Your task to perform on an android device: Show the shopping cart on newegg.com. Add bose soundlink to the cart on newegg.com Image 0: 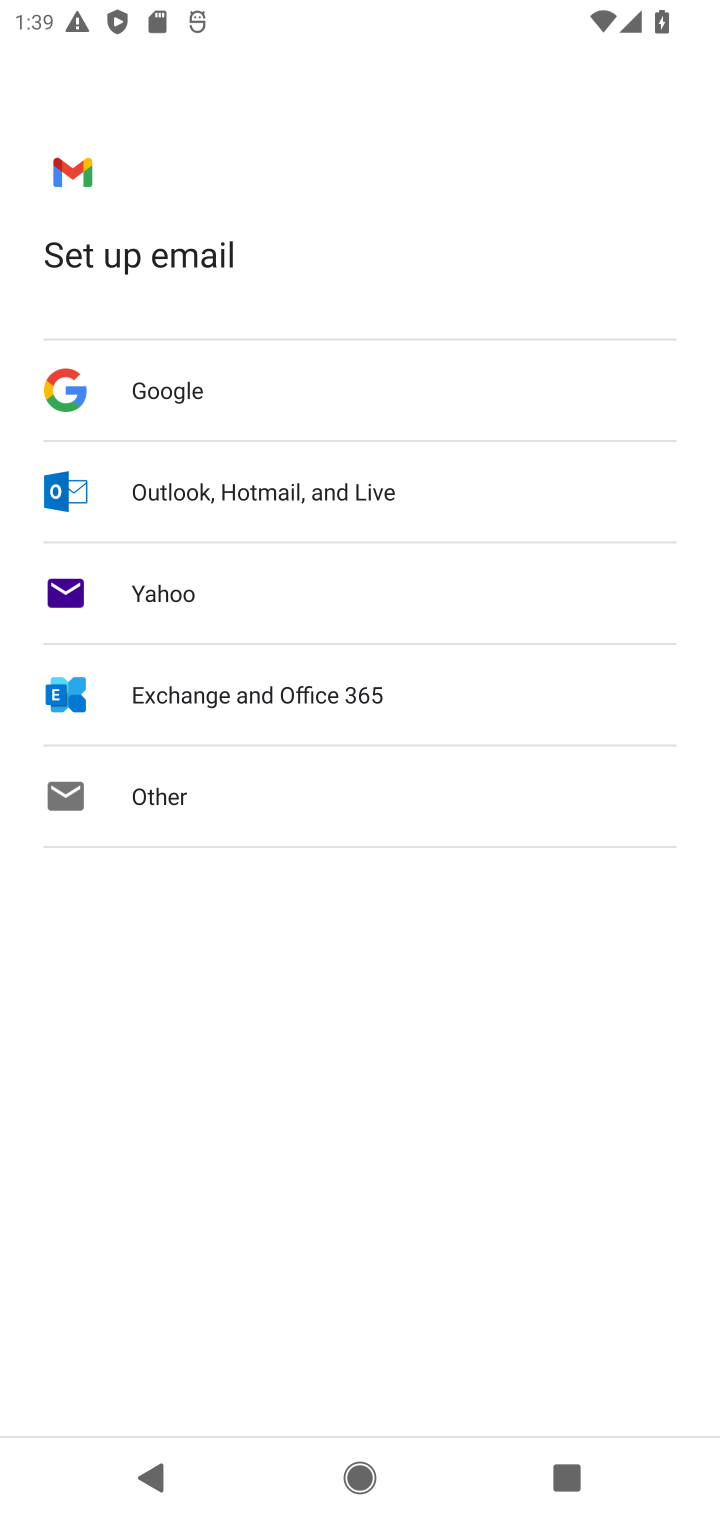
Step 0: press home button
Your task to perform on an android device: Show the shopping cart on newegg.com. Add bose soundlink to the cart on newegg.com Image 1: 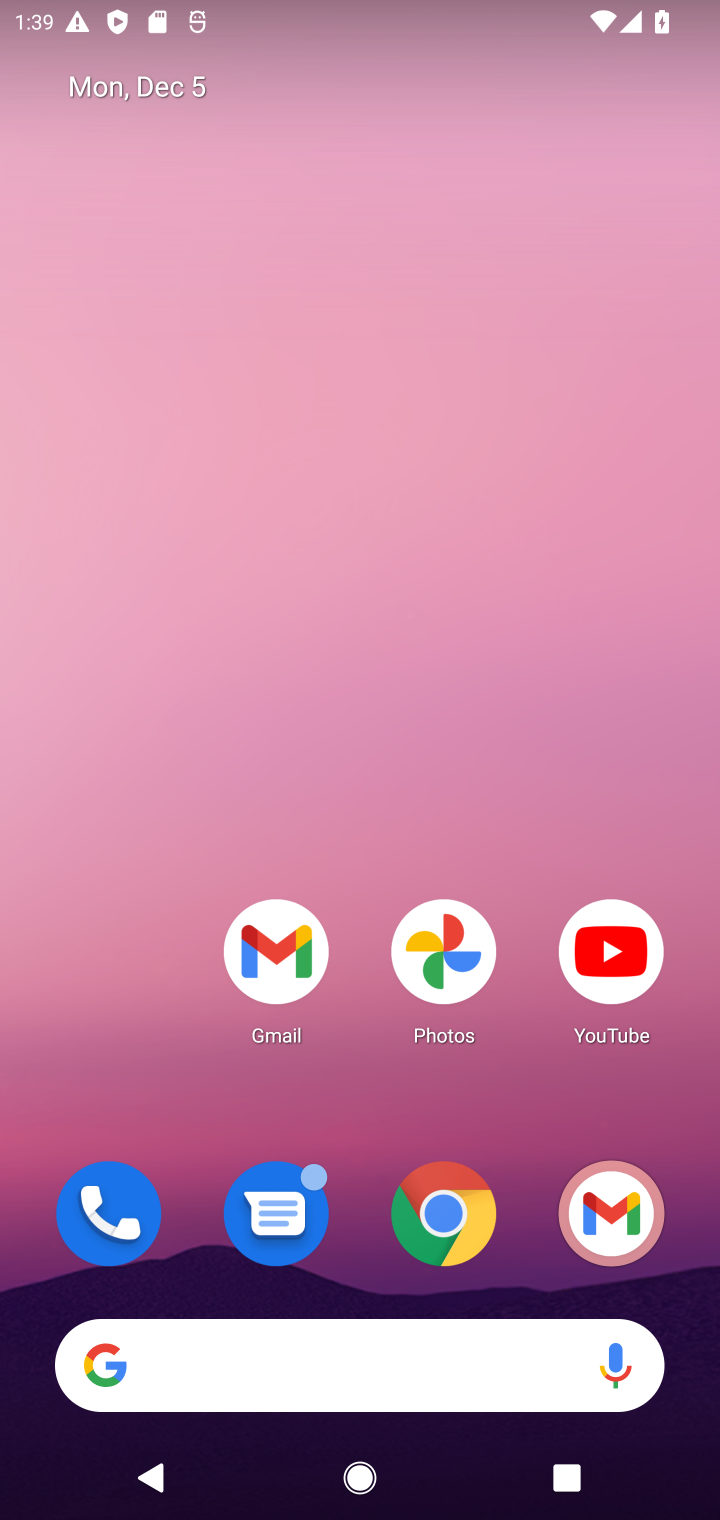
Step 1: click (441, 1230)
Your task to perform on an android device: Show the shopping cart on newegg.com. Add bose soundlink to the cart on newegg.com Image 2: 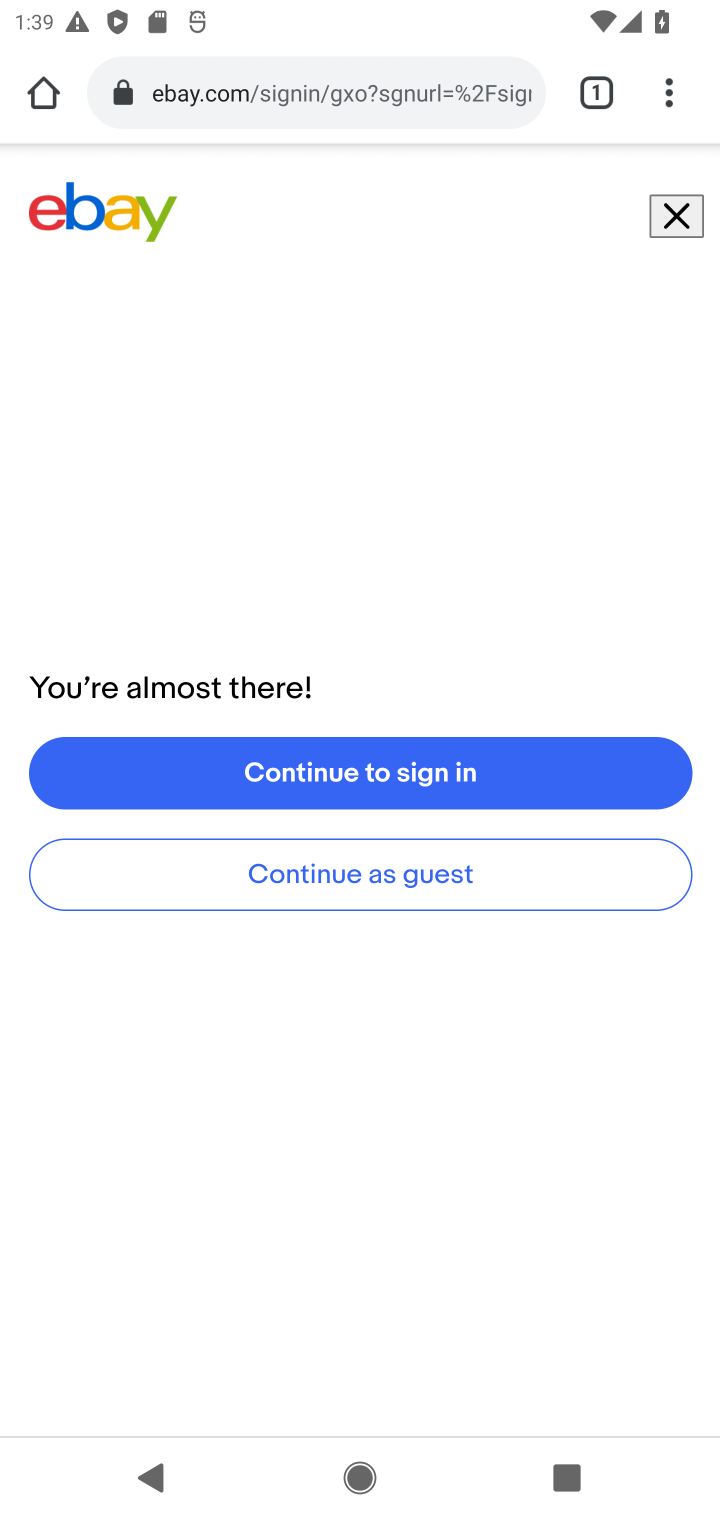
Step 2: click (255, 100)
Your task to perform on an android device: Show the shopping cart on newegg.com. Add bose soundlink to the cart on newegg.com Image 3: 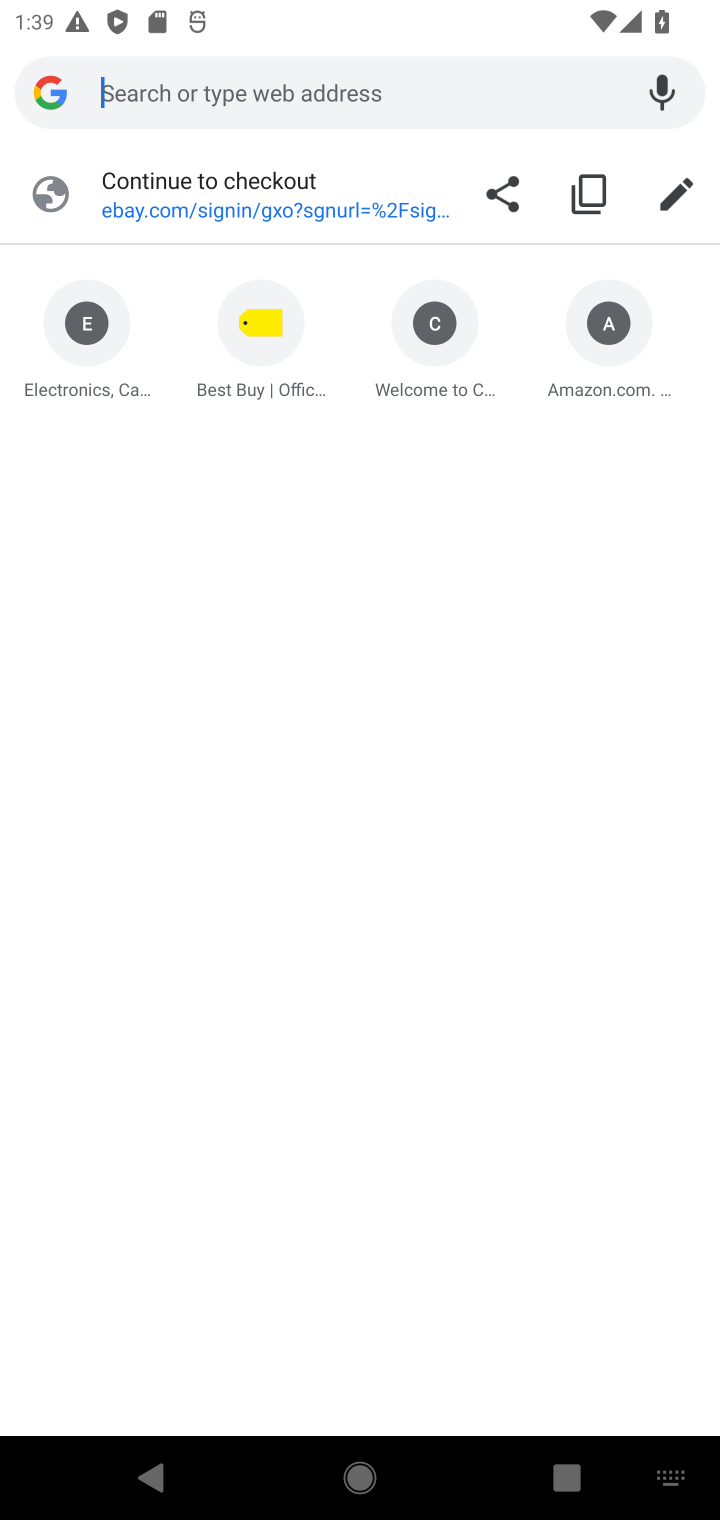
Step 3: type "newegg.com"
Your task to perform on an android device: Show the shopping cart on newegg.com. Add bose soundlink to the cart on newegg.com Image 4: 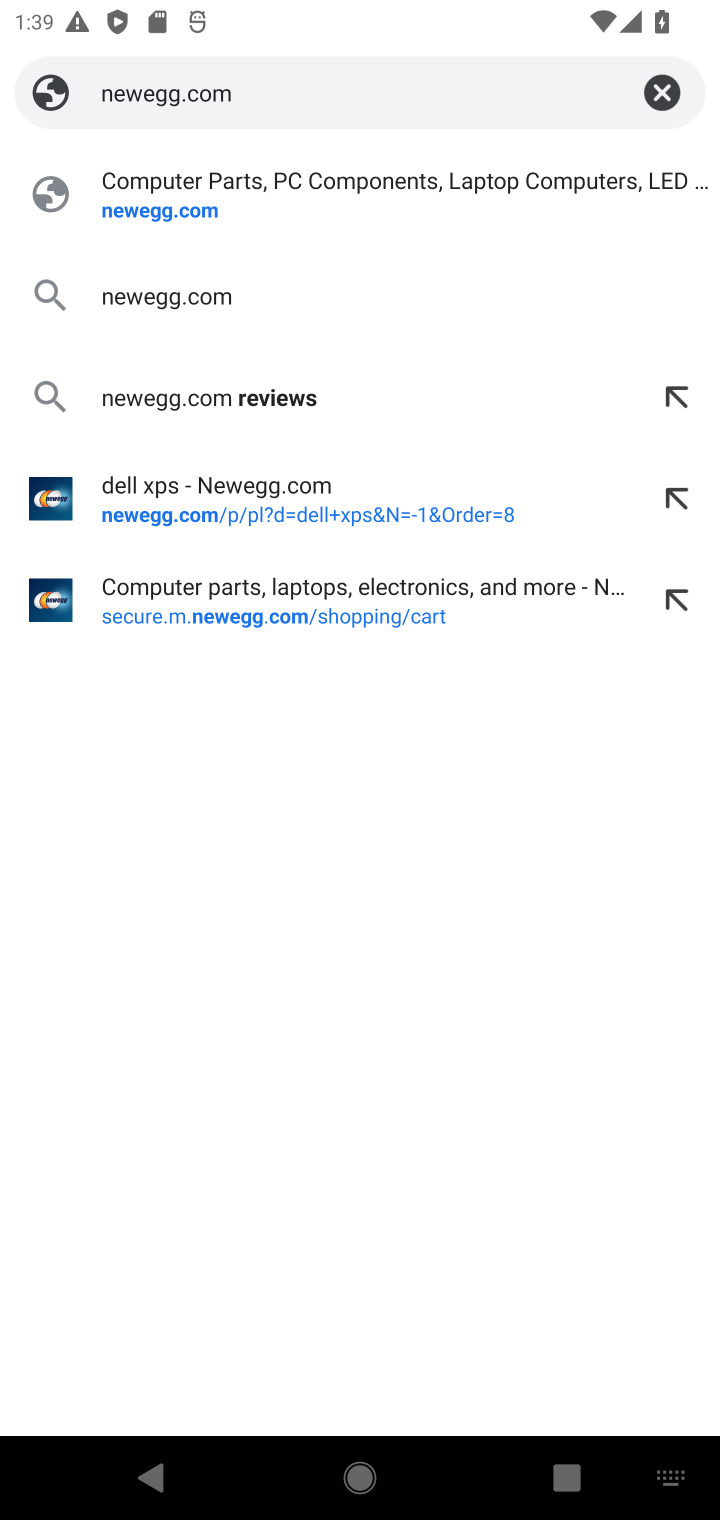
Step 4: click (175, 222)
Your task to perform on an android device: Show the shopping cart on newegg.com. Add bose soundlink to the cart on newegg.com Image 5: 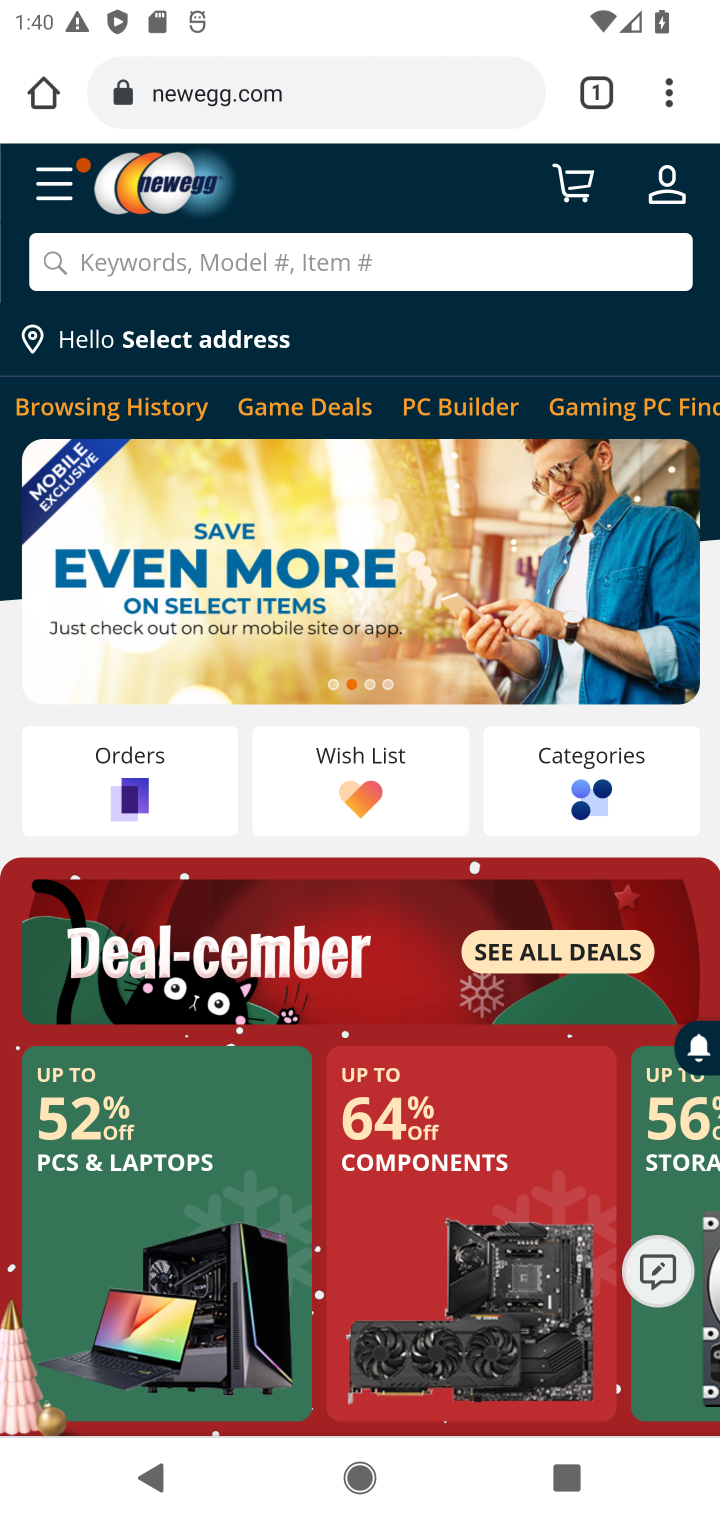
Step 5: click (576, 184)
Your task to perform on an android device: Show the shopping cart on newegg.com. Add bose soundlink to the cart on newegg.com Image 6: 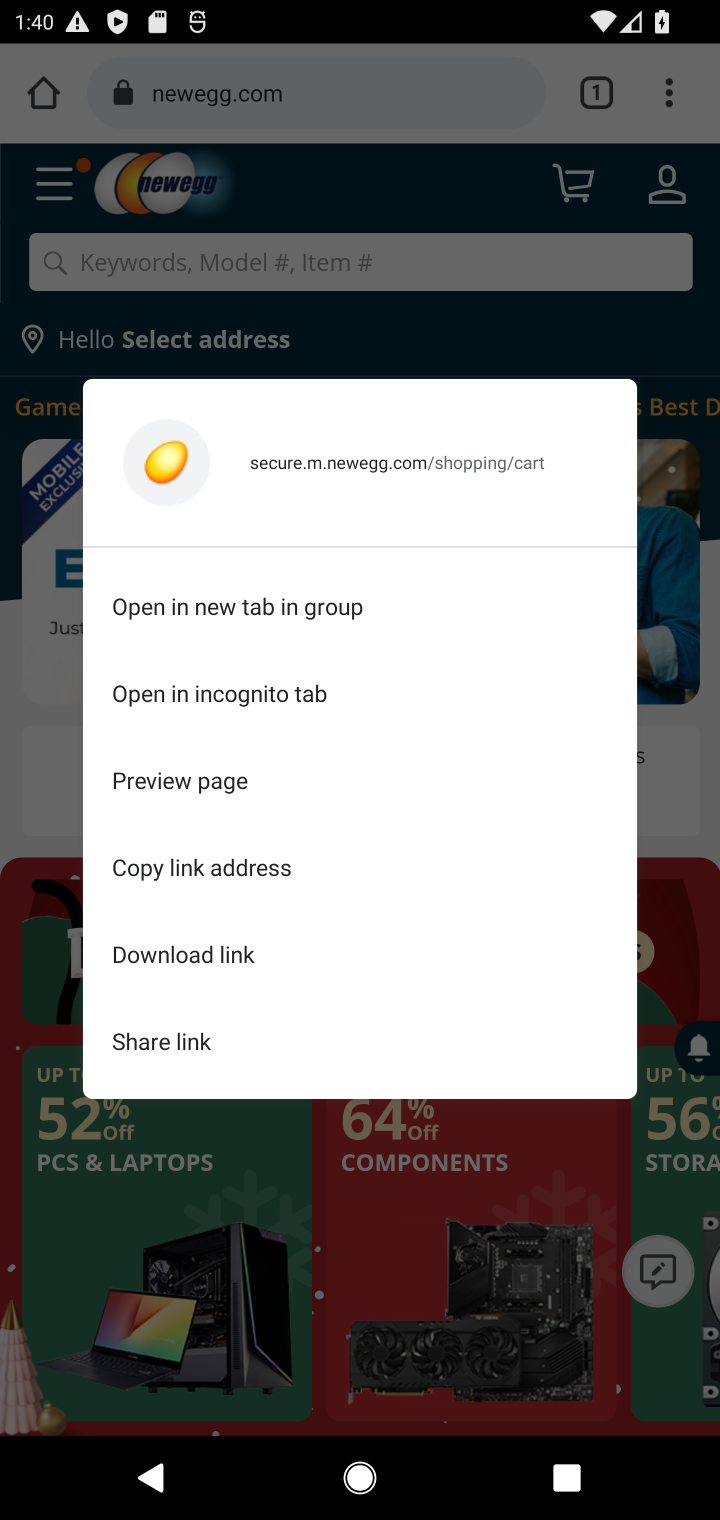
Step 6: click (578, 190)
Your task to perform on an android device: Show the shopping cart on newegg.com. Add bose soundlink to the cart on newegg.com Image 7: 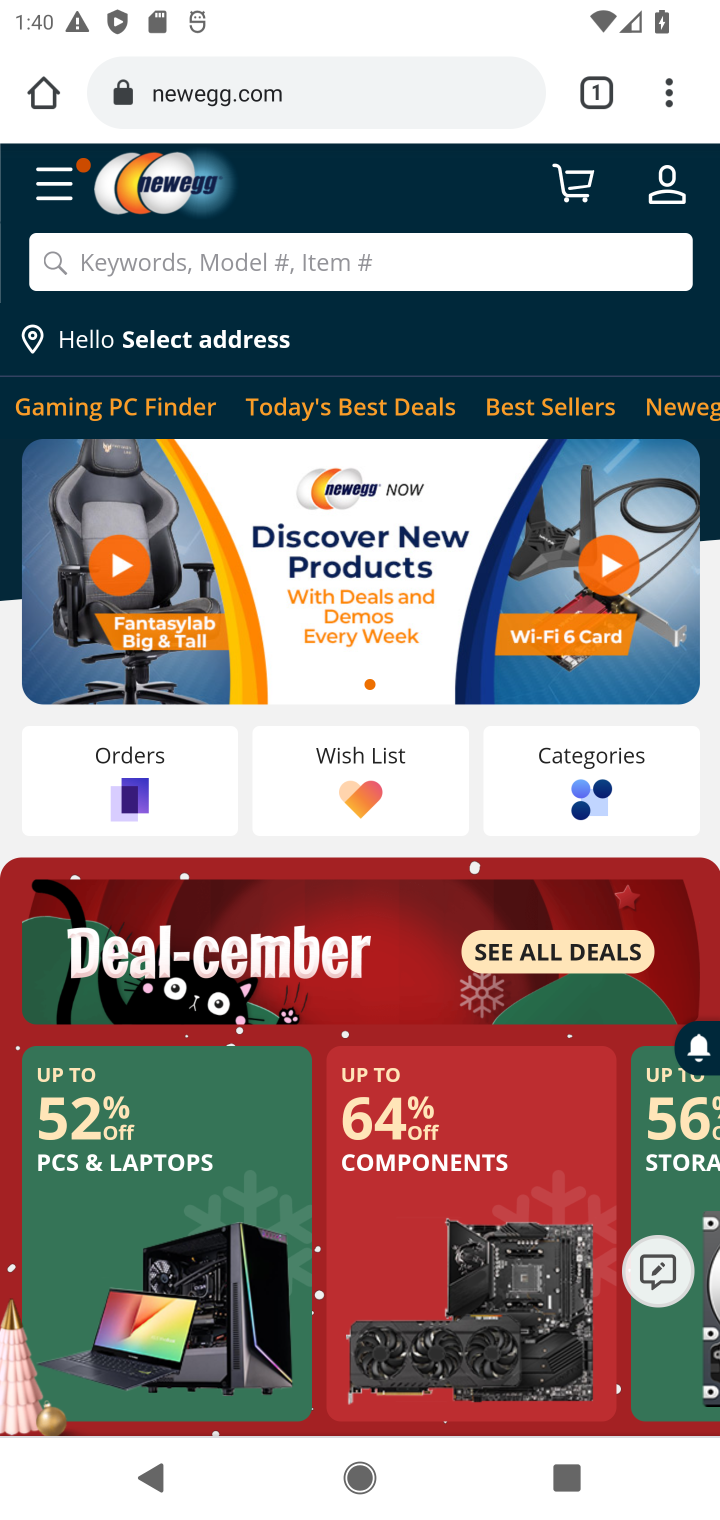
Step 7: click (577, 186)
Your task to perform on an android device: Show the shopping cart on newegg.com. Add bose soundlink to the cart on newegg.com Image 8: 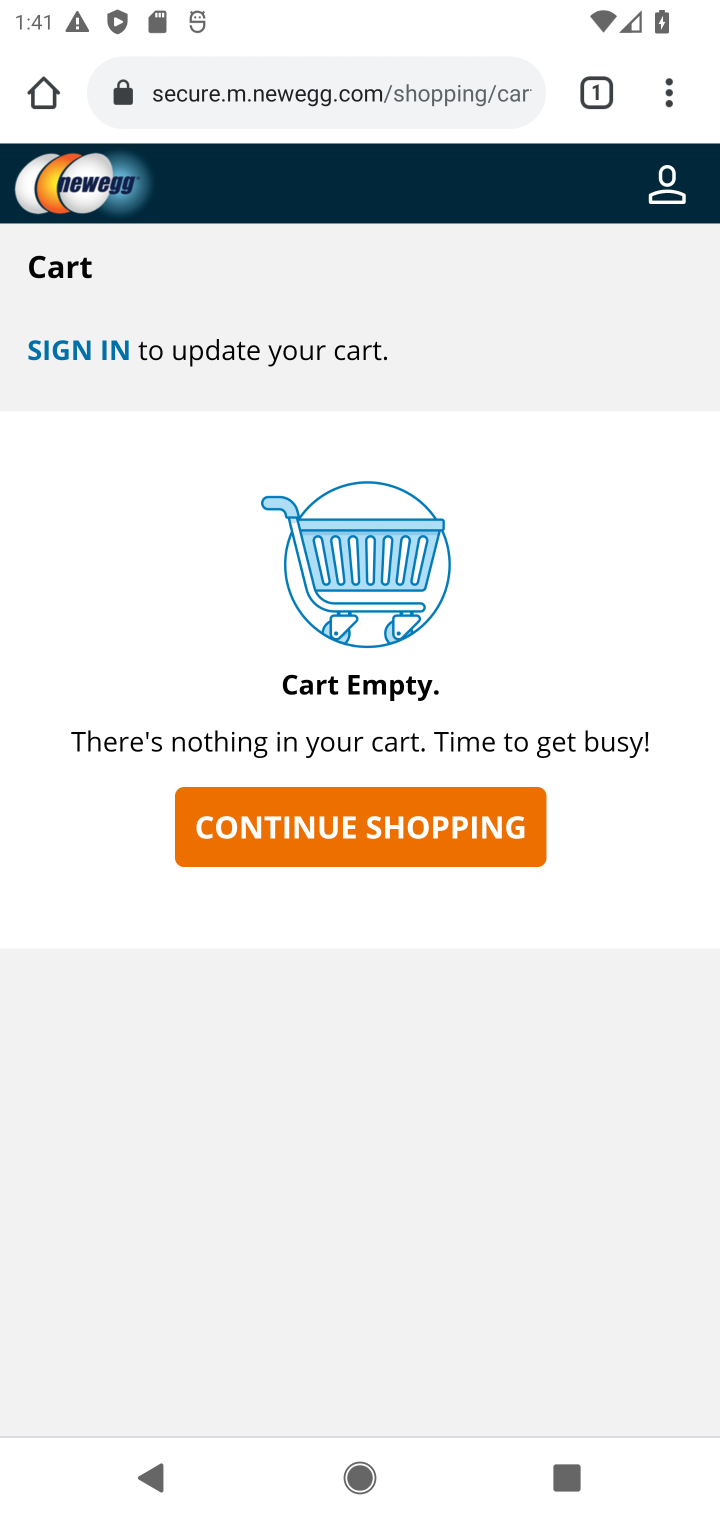
Step 8: click (369, 820)
Your task to perform on an android device: Show the shopping cart on newegg.com. Add bose soundlink to the cart on newegg.com Image 9: 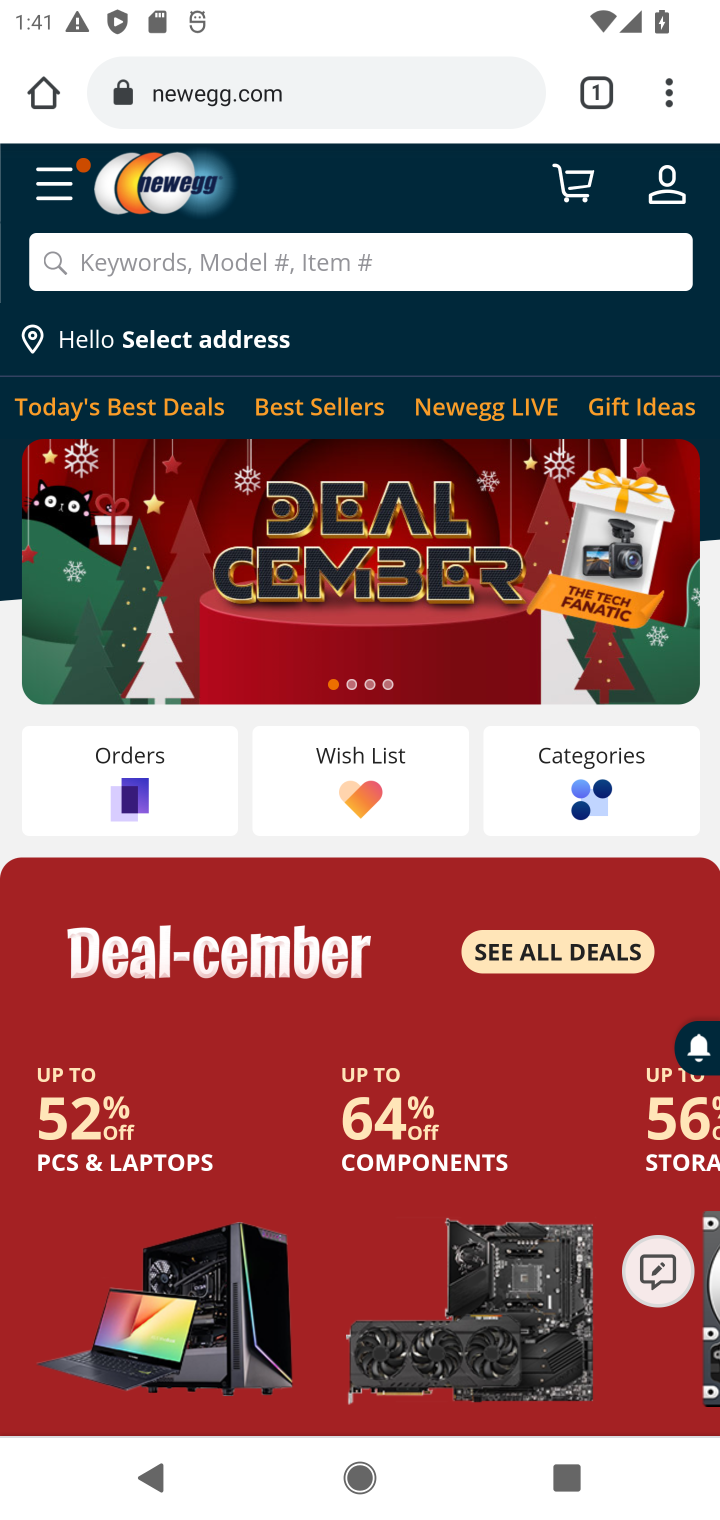
Step 9: click (230, 277)
Your task to perform on an android device: Show the shopping cart on newegg.com. Add bose soundlink to the cart on newegg.com Image 10: 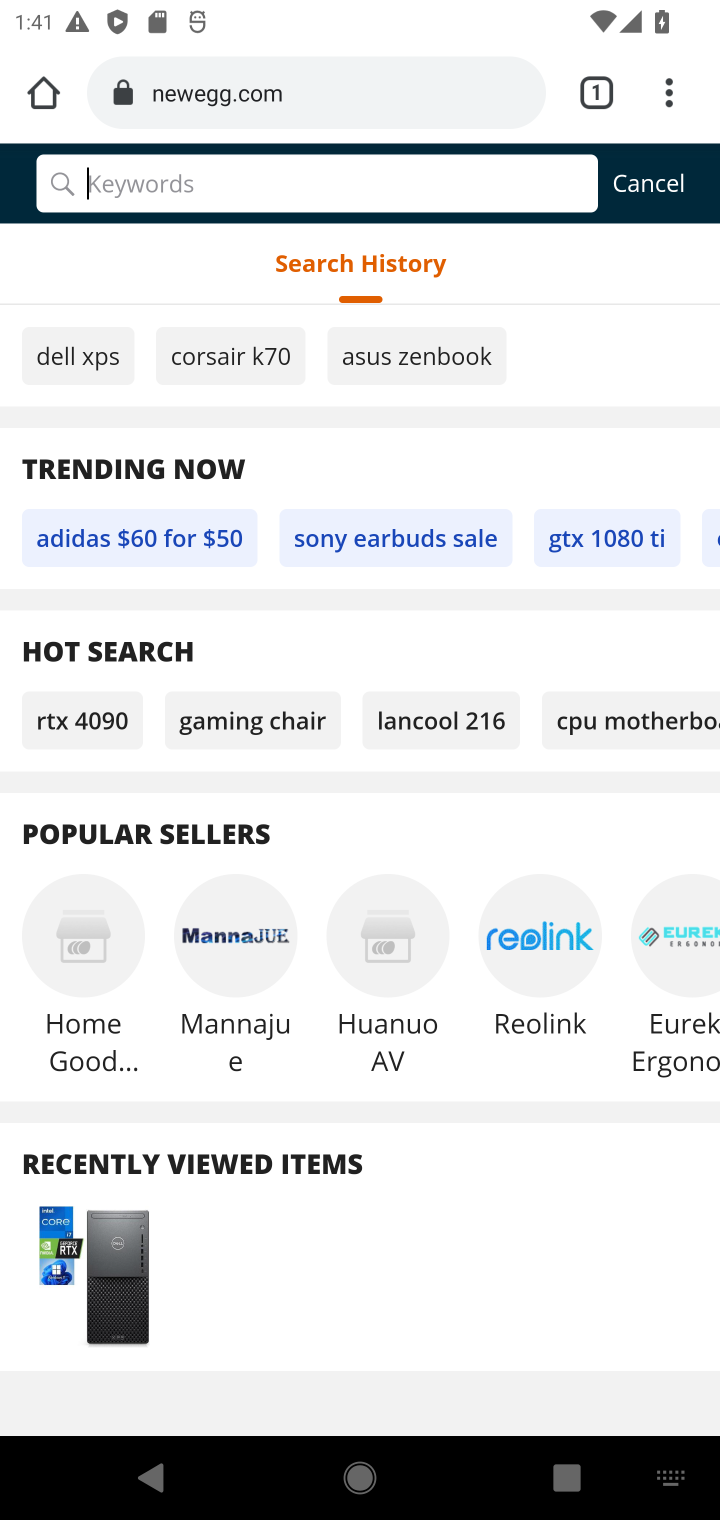
Step 10: click (279, 197)
Your task to perform on an android device: Show the shopping cart on newegg.com. Add bose soundlink to the cart on newegg.com Image 11: 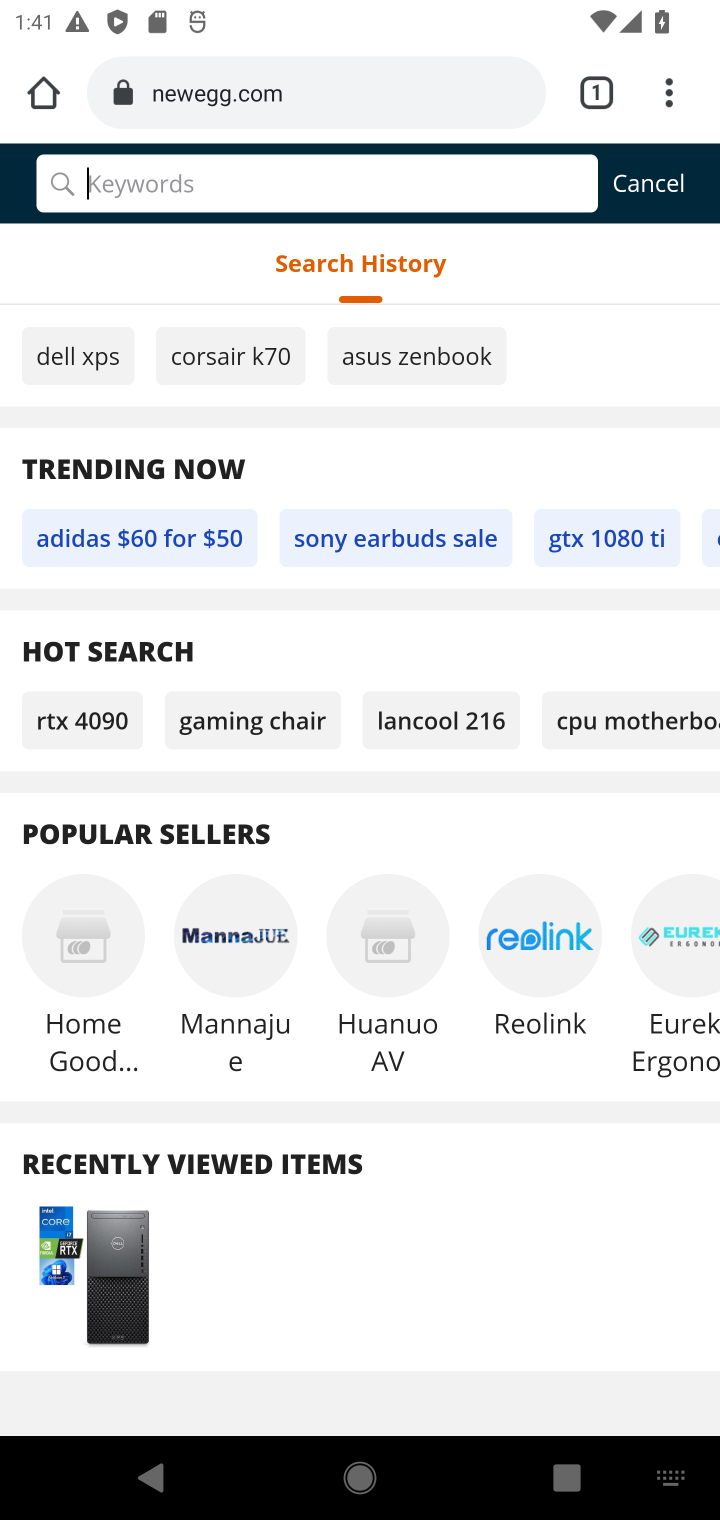
Step 11: type "bose soundlink"
Your task to perform on an android device: Show the shopping cart on newegg.com. Add bose soundlink to the cart on newegg.com Image 12: 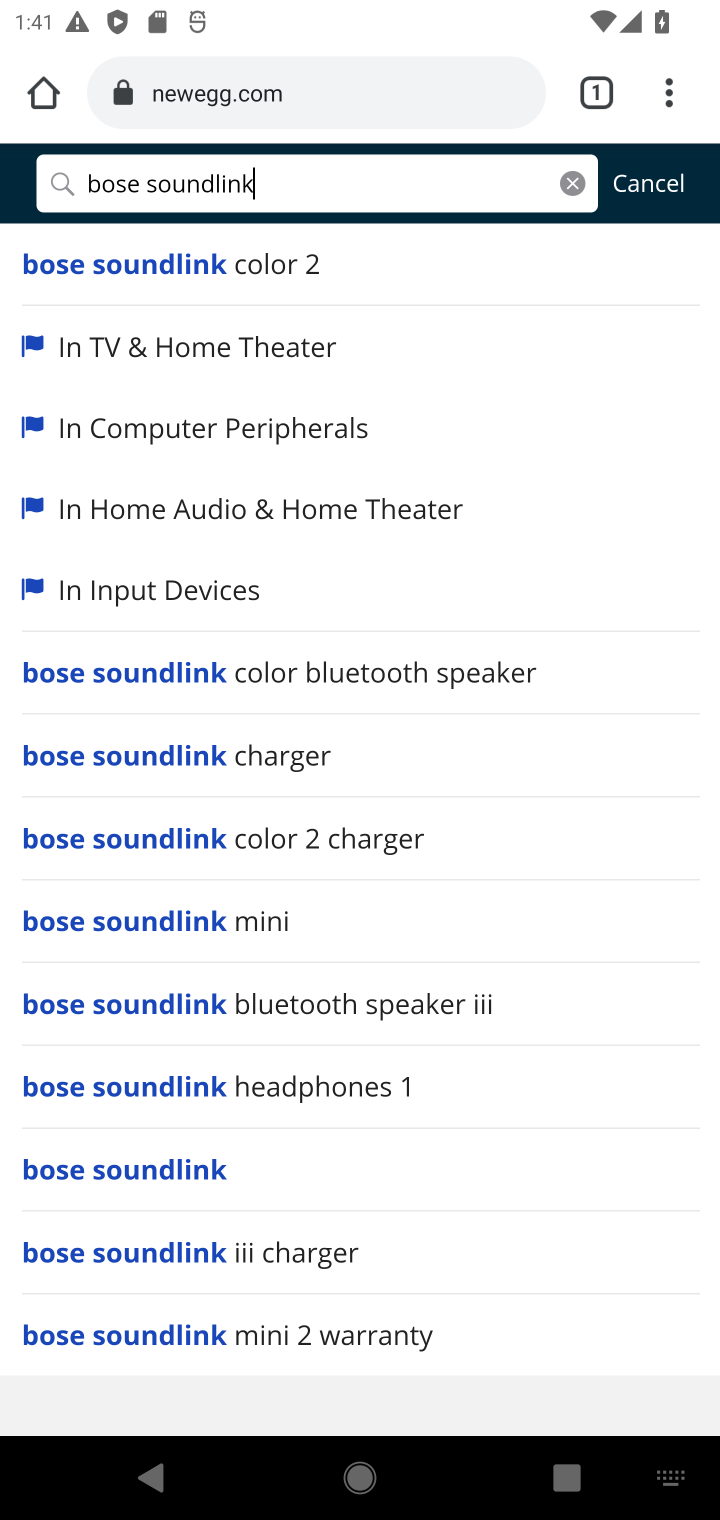
Step 12: click (178, 1162)
Your task to perform on an android device: Show the shopping cart on newegg.com. Add bose soundlink to the cart on newegg.com Image 13: 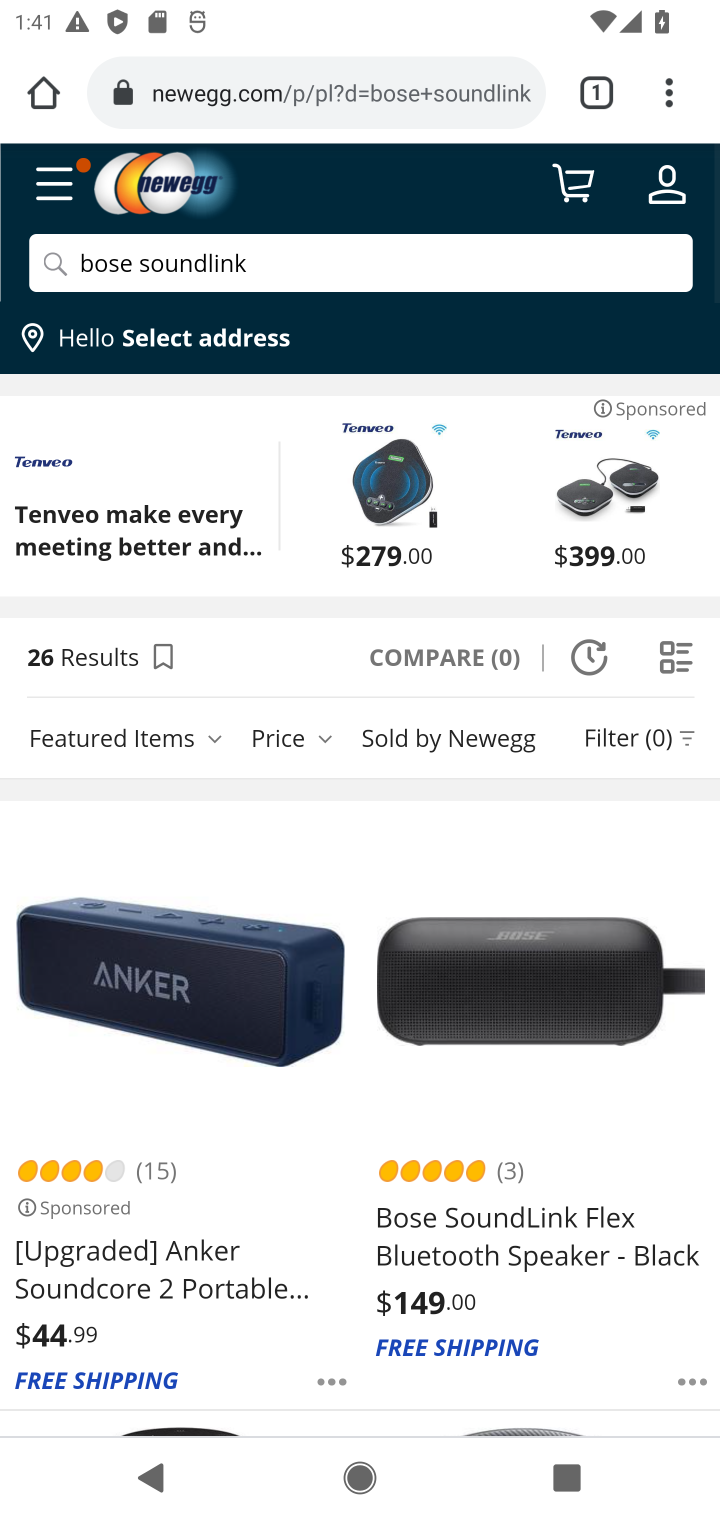
Step 13: drag from (356, 1208) to (350, 806)
Your task to perform on an android device: Show the shopping cart on newegg.com. Add bose soundlink to the cart on newegg.com Image 14: 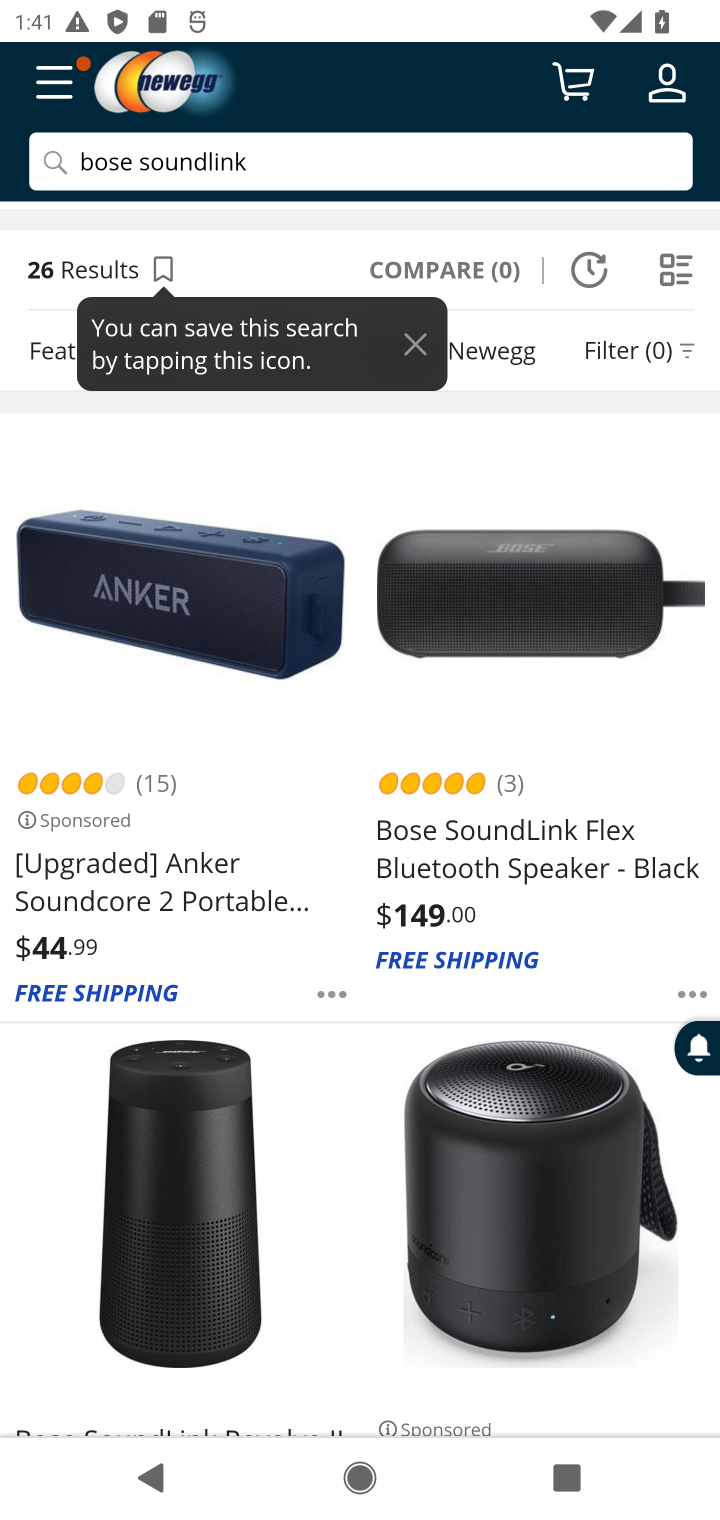
Step 14: click (499, 861)
Your task to perform on an android device: Show the shopping cart on newegg.com. Add bose soundlink to the cart on newegg.com Image 15: 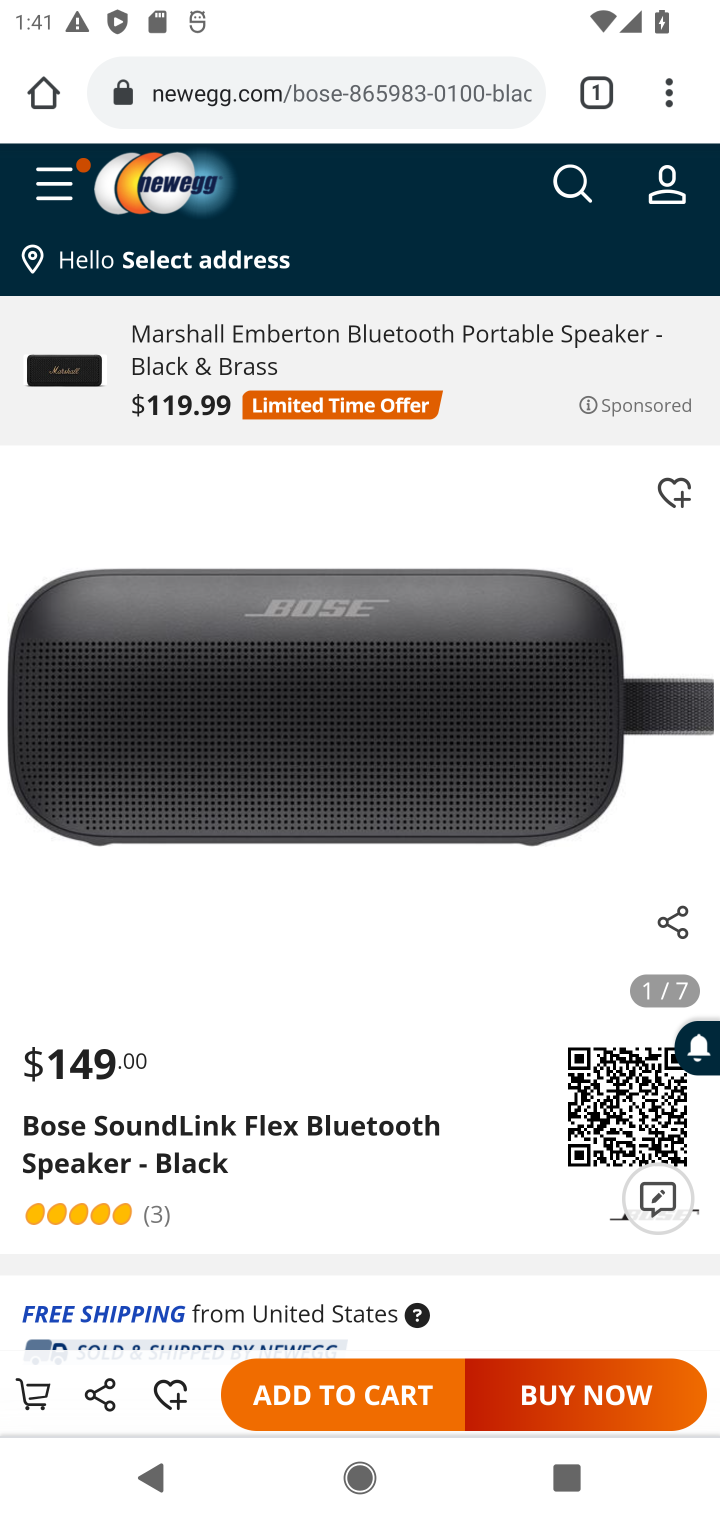
Step 15: click (336, 1393)
Your task to perform on an android device: Show the shopping cart on newegg.com. Add bose soundlink to the cart on newegg.com Image 16: 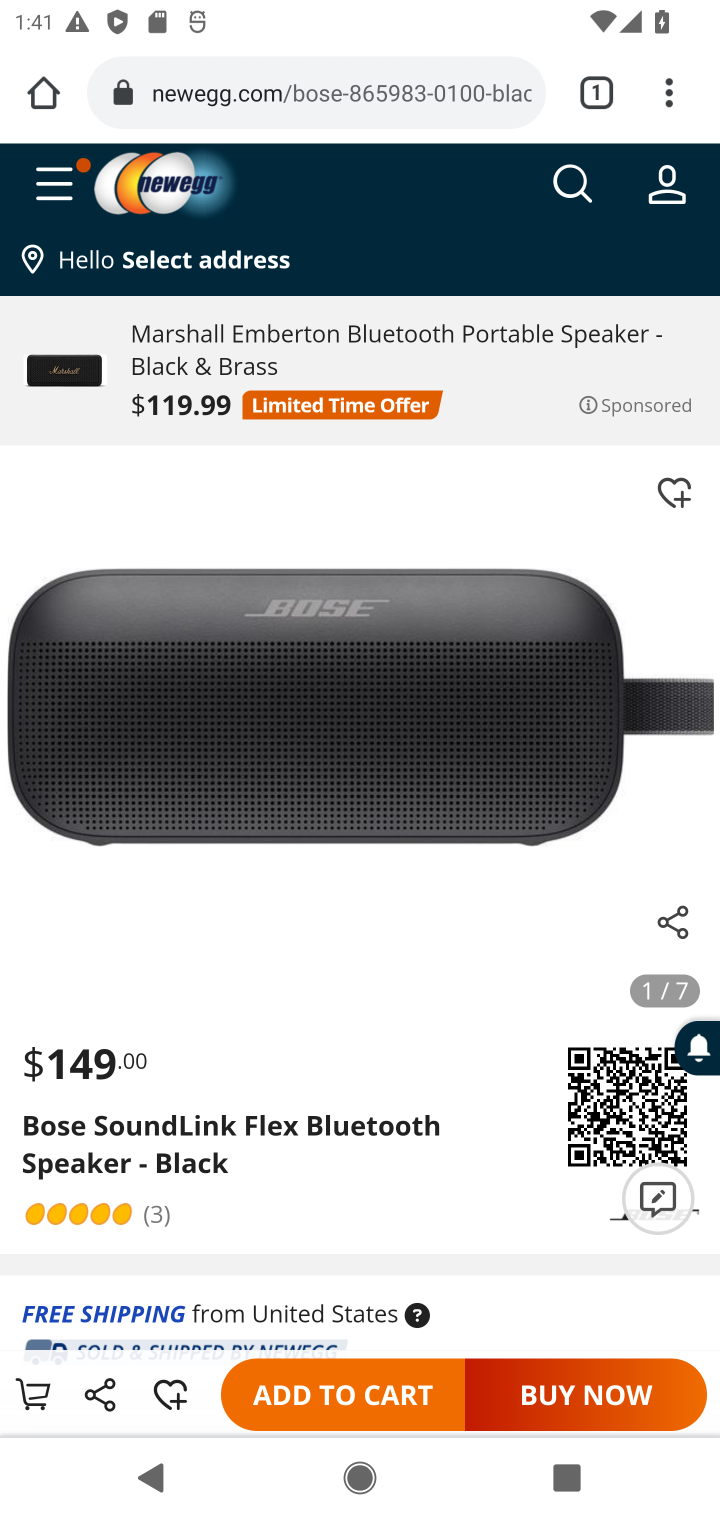
Step 16: click (337, 1407)
Your task to perform on an android device: Show the shopping cart on newegg.com. Add bose soundlink to the cart on newegg.com Image 17: 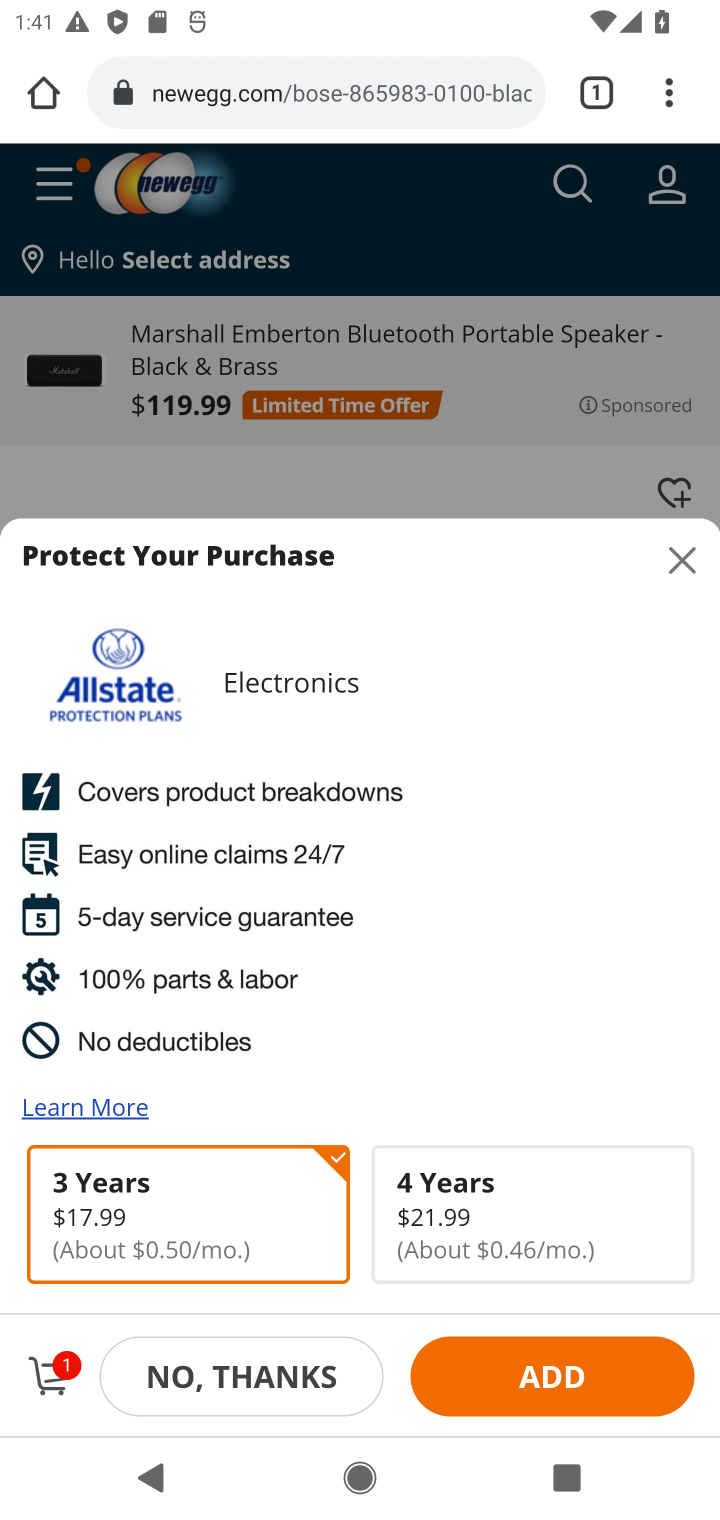
Step 17: task complete